Your task to perform on an android device: Open battery settings Image 0: 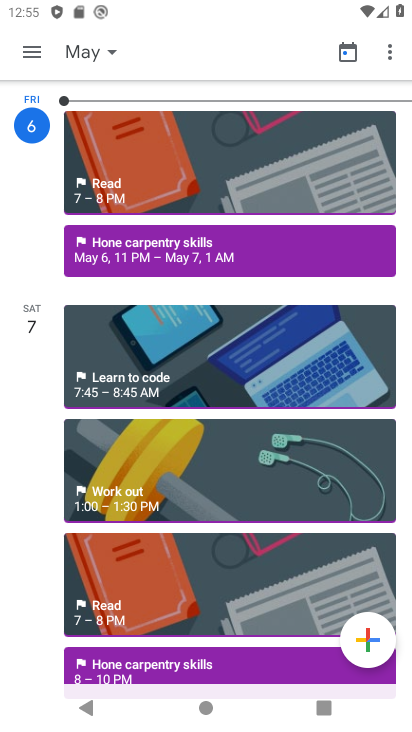
Step 0: press home button
Your task to perform on an android device: Open battery settings Image 1: 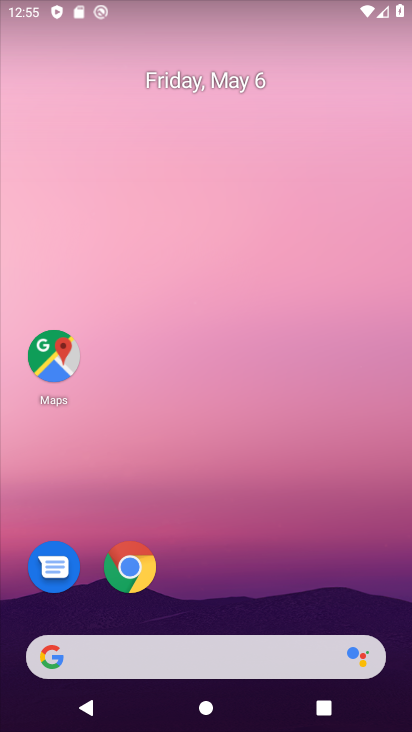
Step 1: drag from (269, 692) to (269, 188)
Your task to perform on an android device: Open battery settings Image 2: 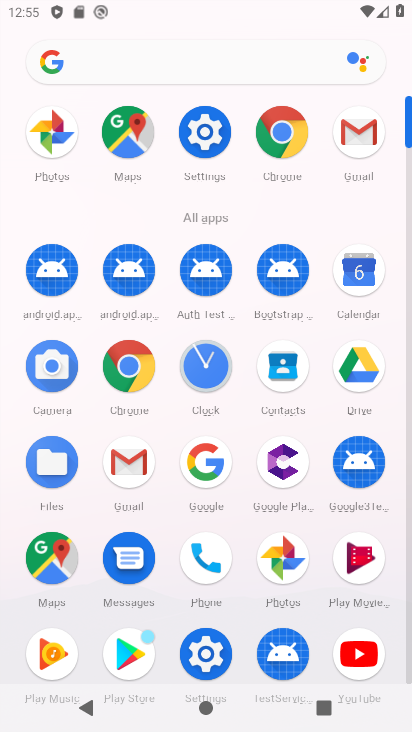
Step 2: click (218, 139)
Your task to perform on an android device: Open battery settings Image 3: 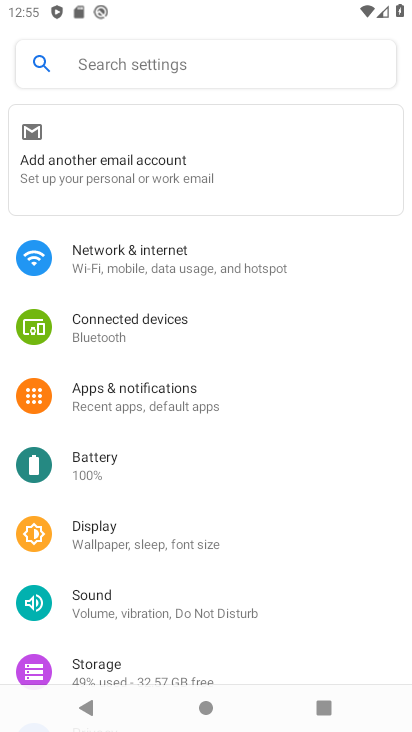
Step 3: click (171, 74)
Your task to perform on an android device: Open battery settings Image 4: 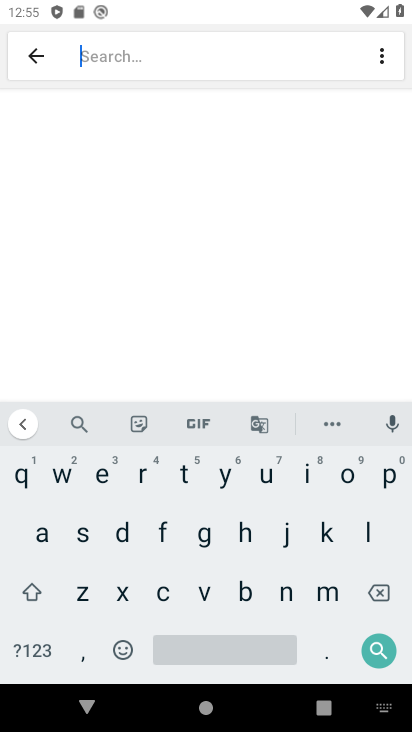
Step 4: click (245, 596)
Your task to perform on an android device: Open battery settings Image 5: 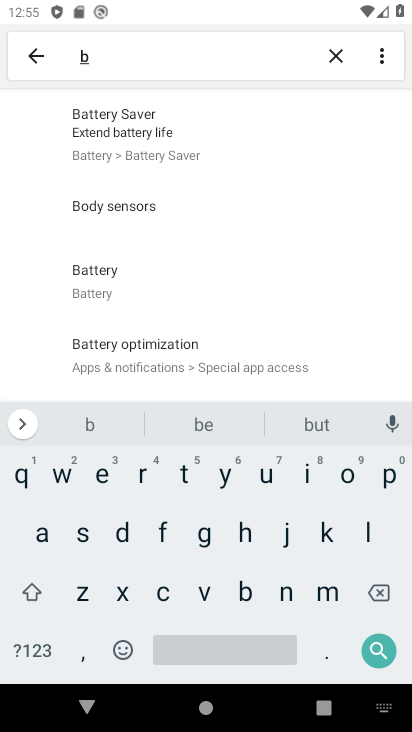
Step 5: click (40, 535)
Your task to perform on an android device: Open battery settings Image 6: 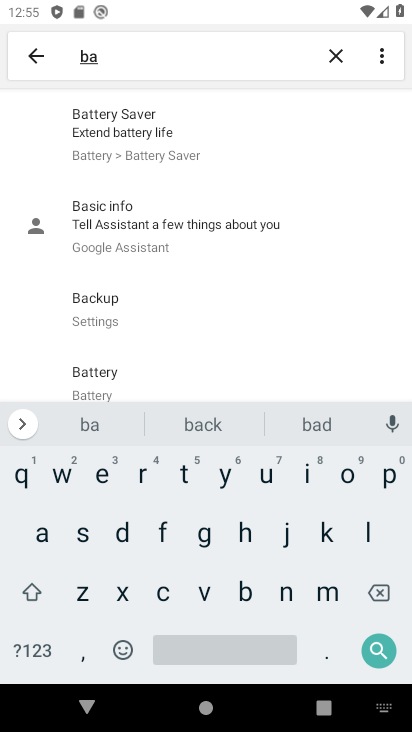
Step 6: click (109, 368)
Your task to perform on an android device: Open battery settings Image 7: 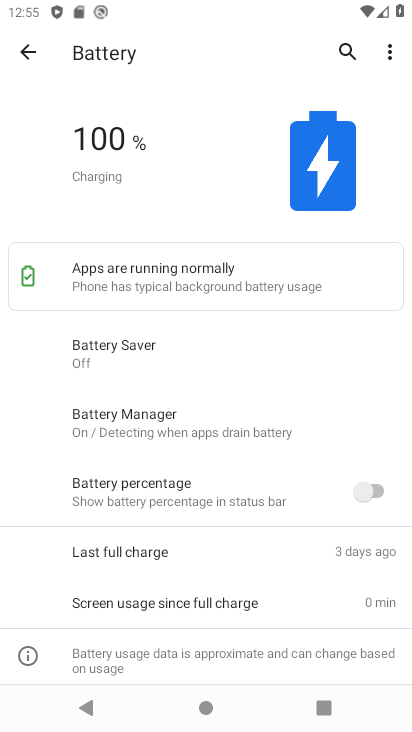
Step 7: task complete